Your task to perform on an android device: turn smart compose on in the gmail app Image 0: 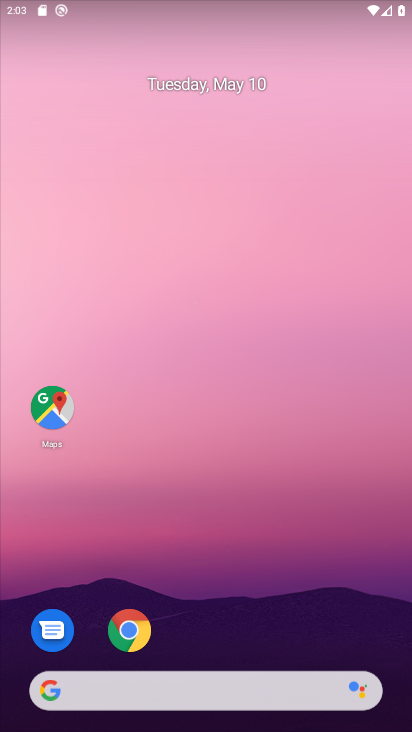
Step 0: drag from (309, 587) to (145, 158)
Your task to perform on an android device: turn smart compose on in the gmail app Image 1: 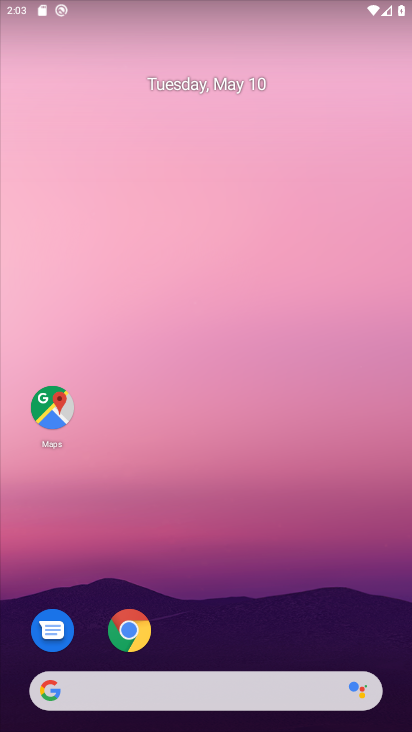
Step 1: drag from (200, 446) to (126, 153)
Your task to perform on an android device: turn smart compose on in the gmail app Image 2: 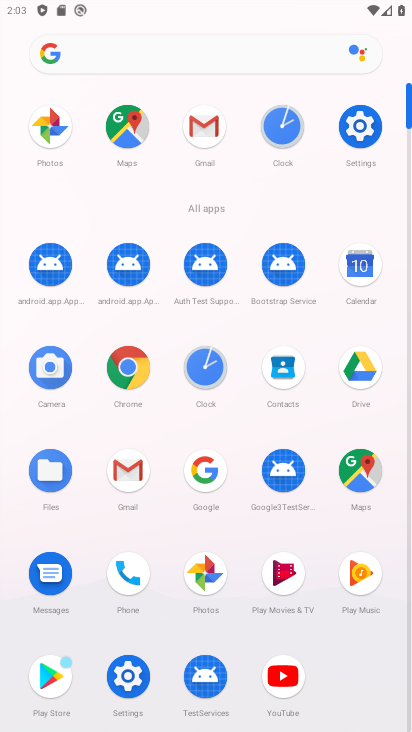
Step 2: click (133, 467)
Your task to perform on an android device: turn smart compose on in the gmail app Image 3: 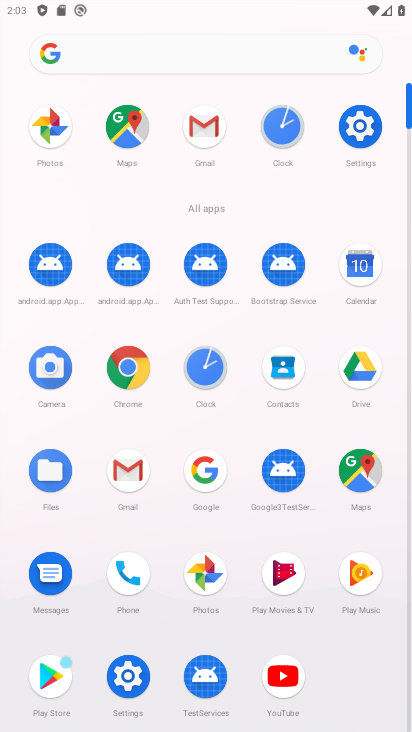
Step 3: click (131, 467)
Your task to perform on an android device: turn smart compose on in the gmail app Image 4: 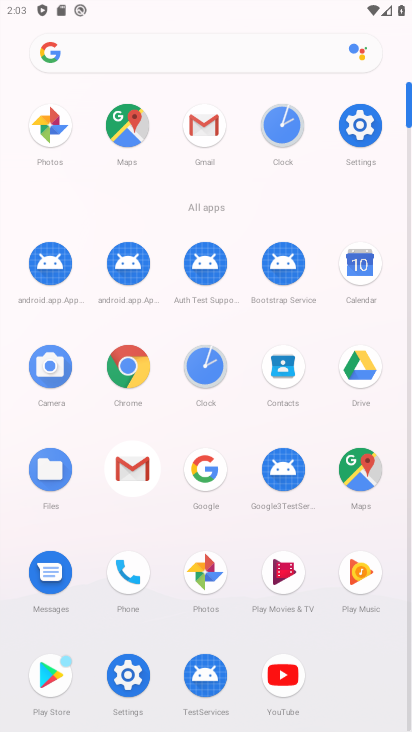
Step 4: click (116, 444)
Your task to perform on an android device: turn smart compose on in the gmail app Image 5: 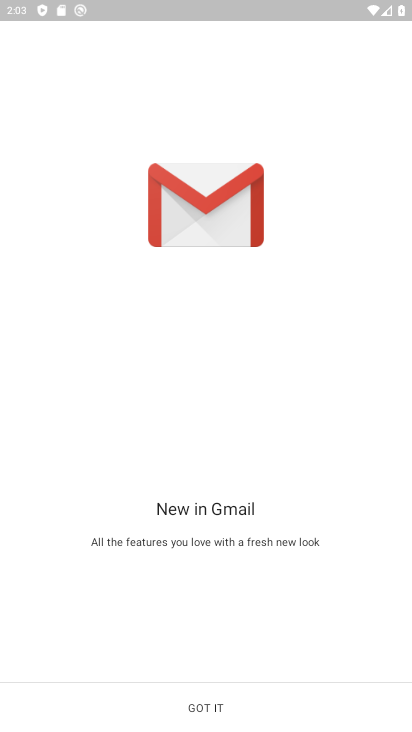
Step 5: click (214, 703)
Your task to perform on an android device: turn smart compose on in the gmail app Image 6: 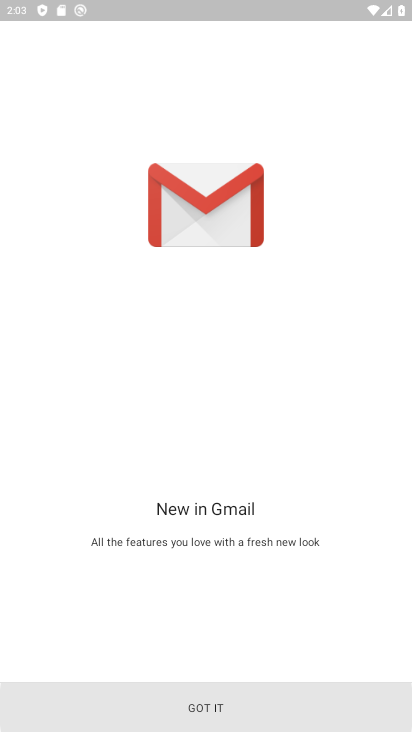
Step 6: click (215, 702)
Your task to perform on an android device: turn smart compose on in the gmail app Image 7: 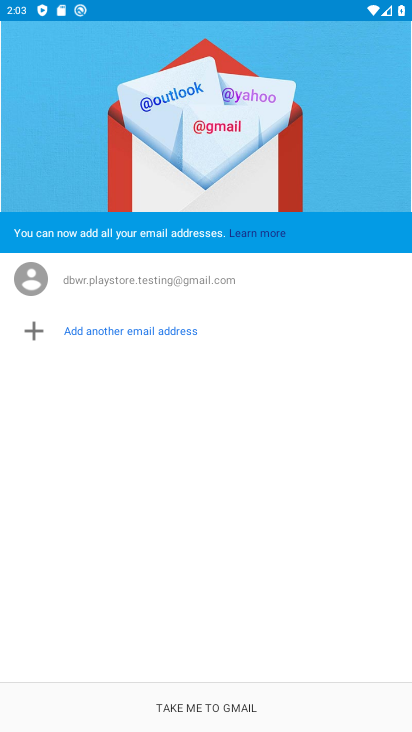
Step 7: click (223, 703)
Your task to perform on an android device: turn smart compose on in the gmail app Image 8: 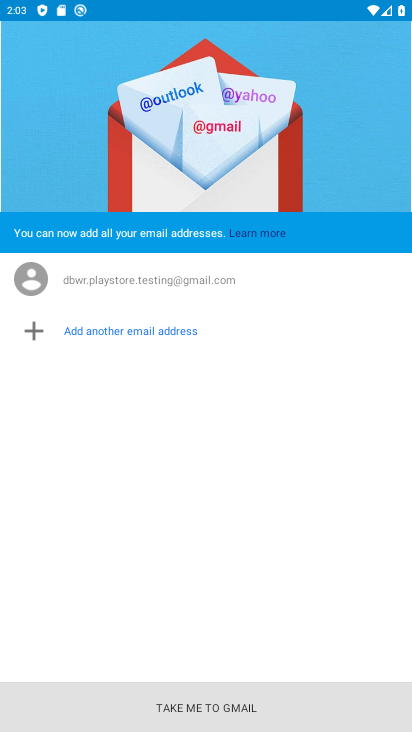
Step 8: click (214, 705)
Your task to perform on an android device: turn smart compose on in the gmail app Image 9: 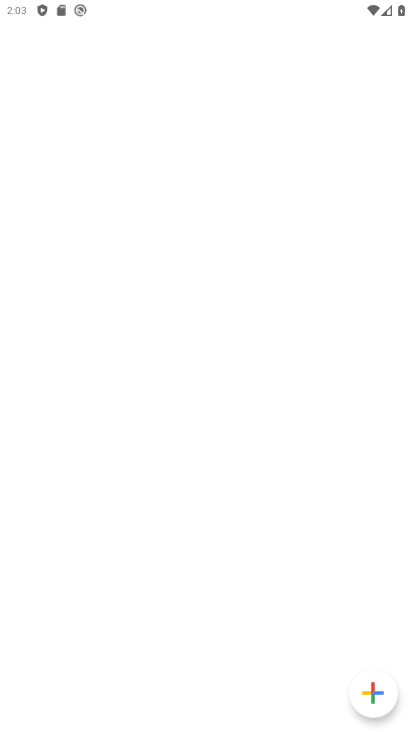
Step 9: click (224, 698)
Your task to perform on an android device: turn smart compose on in the gmail app Image 10: 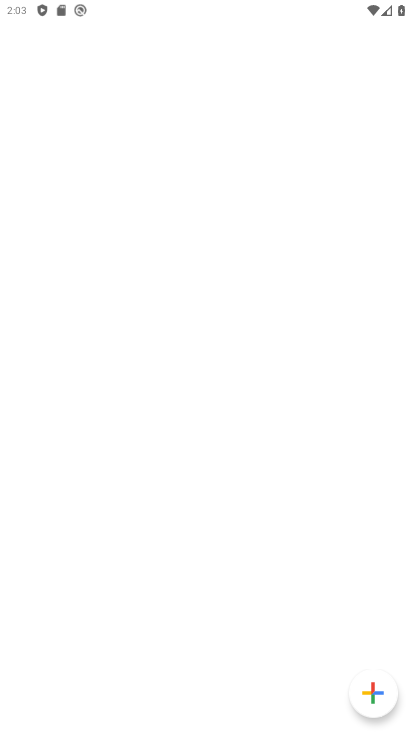
Step 10: click (219, 713)
Your task to perform on an android device: turn smart compose on in the gmail app Image 11: 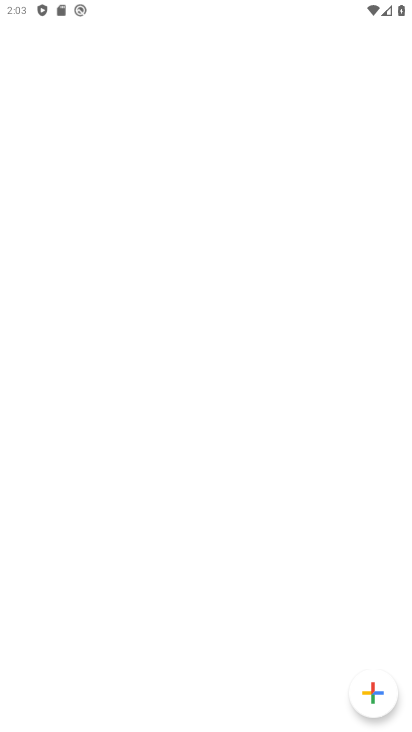
Step 11: click (231, 706)
Your task to perform on an android device: turn smart compose on in the gmail app Image 12: 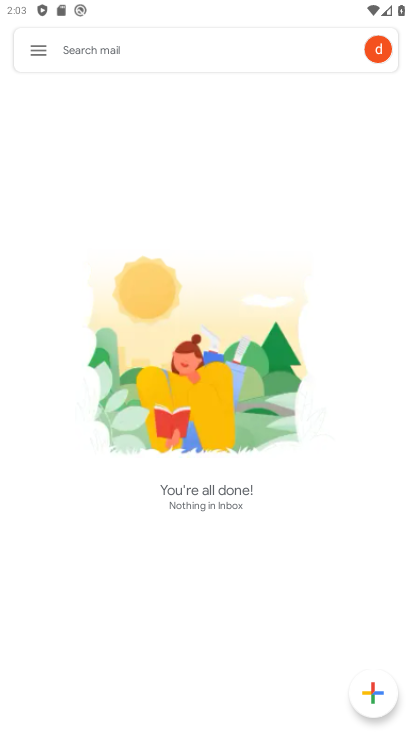
Step 12: click (36, 42)
Your task to perform on an android device: turn smart compose on in the gmail app Image 13: 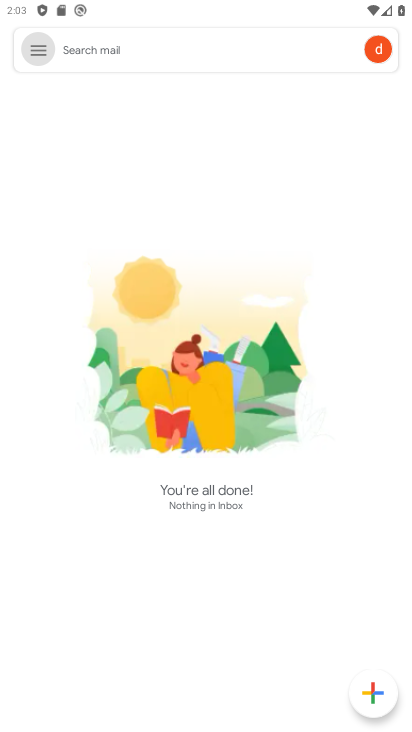
Step 13: click (38, 54)
Your task to perform on an android device: turn smart compose on in the gmail app Image 14: 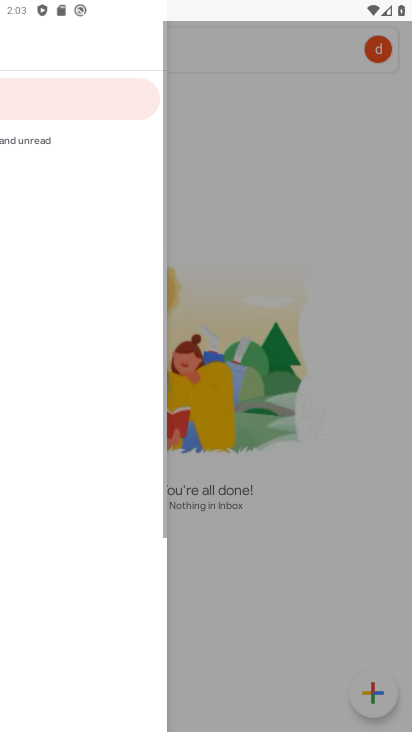
Step 14: click (38, 54)
Your task to perform on an android device: turn smart compose on in the gmail app Image 15: 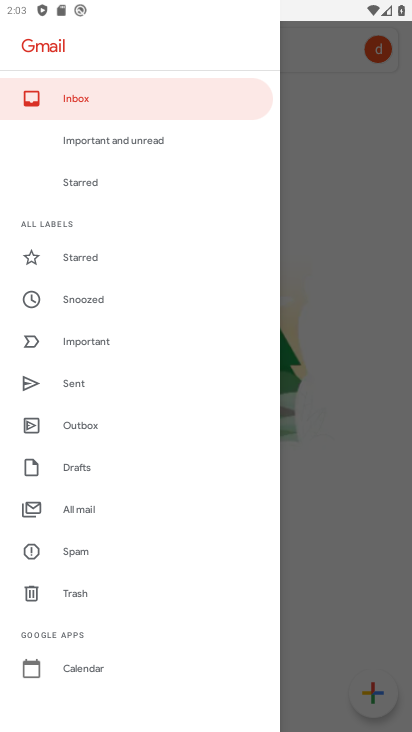
Step 15: drag from (110, 590) to (142, 141)
Your task to perform on an android device: turn smart compose on in the gmail app Image 16: 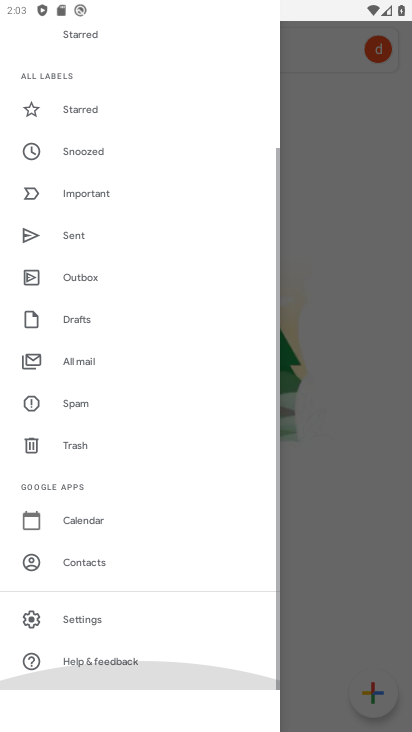
Step 16: drag from (175, 395) to (163, 112)
Your task to perform on an android device: turn smart compose on in the gmail app Image 17: 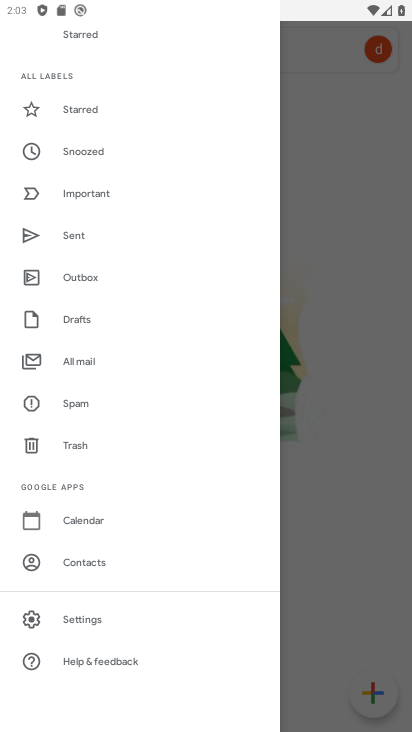
Step 17: click (82, 617)
Your task to perform on an android device: turn smart compose on in the gmail app Image 18: 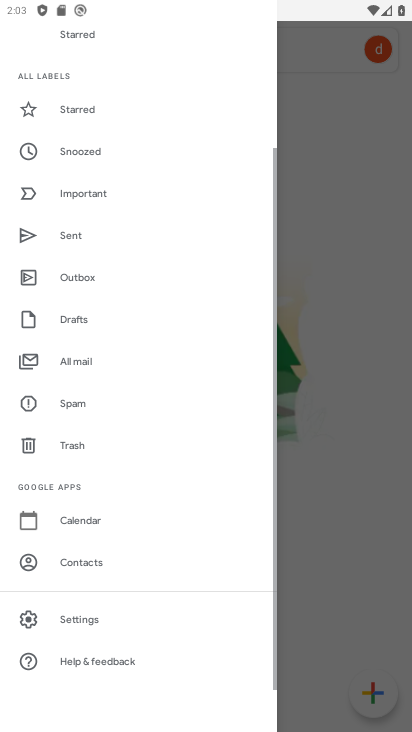
Step 18: click (84, 616)
Your task to perform on an android device: turn smart compose on in the gmail app Image 19: 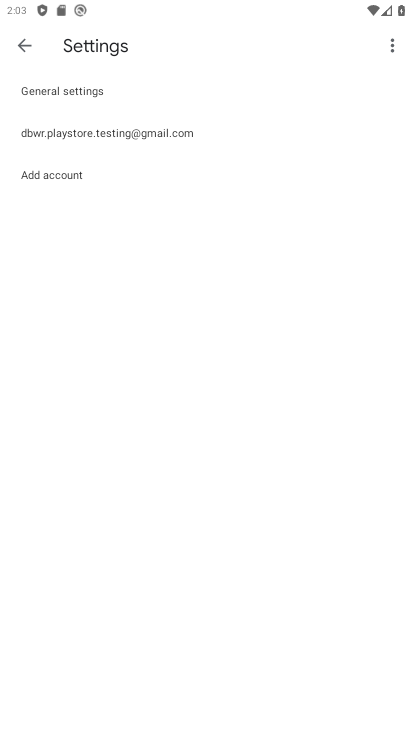
Step 19: click (73, 123)
Your task to perform on an android device: turn smart compose on in the gmail app Image 20: 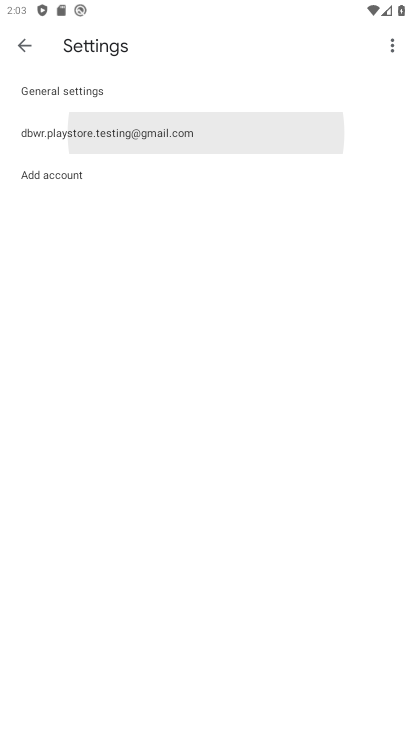
Step 20: click (73, 123)
Your task to perform on an android device: turn smart compose on in the gmail app Image 21: 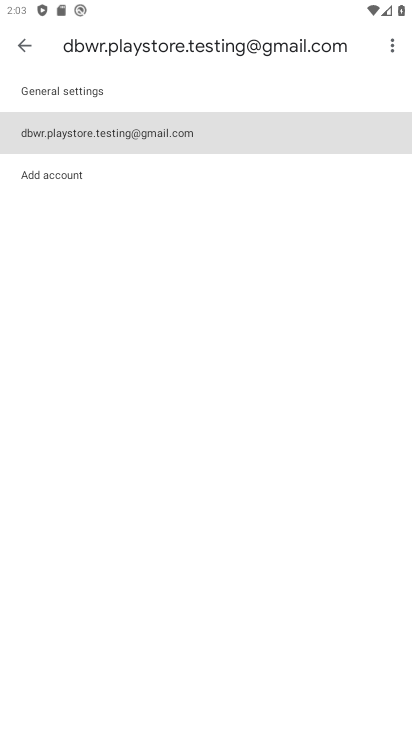
Step 21: click (73, 133)
Your task to perform on an android device: turn smart compose on in the gmail app Image 22: 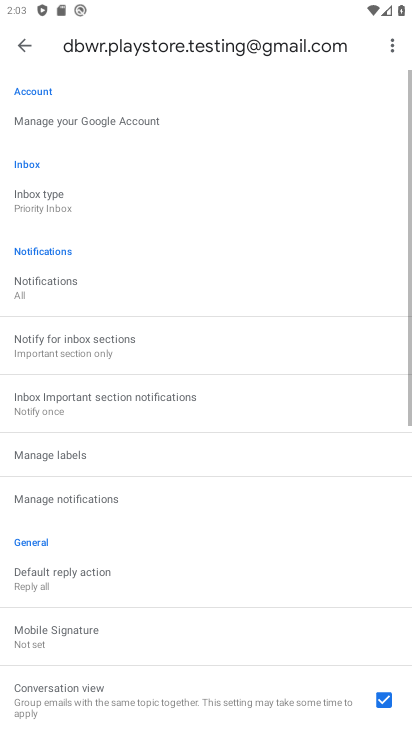
Step 22: click (74, 135)
Your task to perform on an android device: turn smart compose on in the gmail app Image 23: 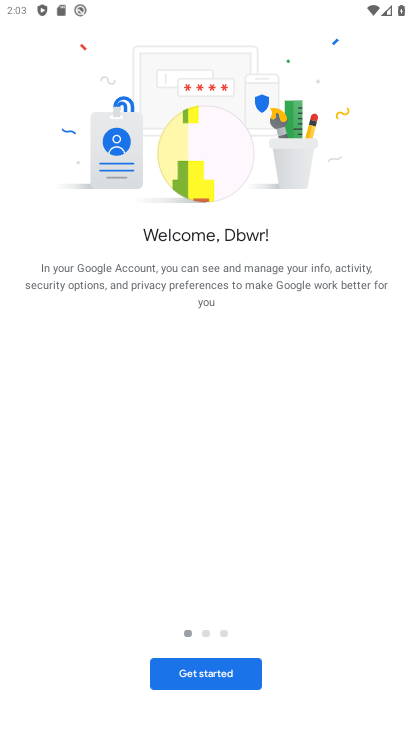
Step 23: click (216, 676)
Your task to perform on an android device: turn smart compose on in the gmail app Image 24: 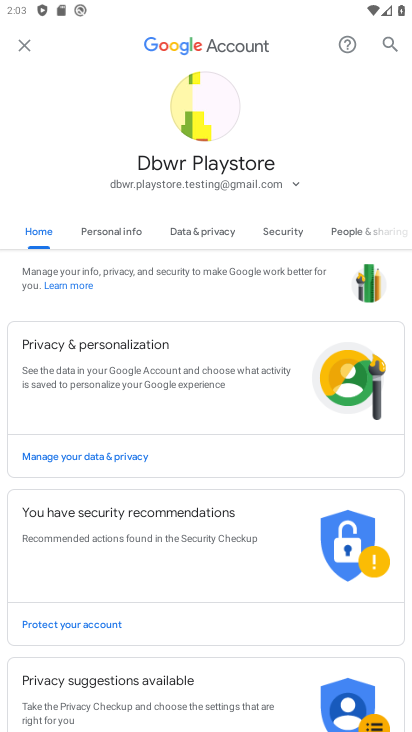
Step 24: drag from (223, 524) to (122, 165)
Your task to perform on an android device: turn smart compose on in the gmail app Image 25: 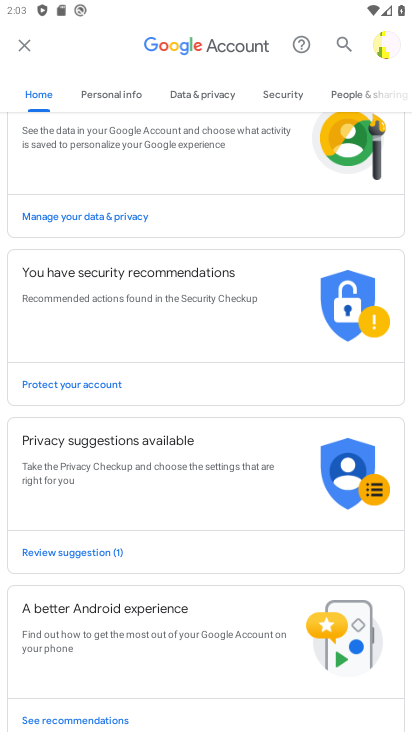
Step 25: drag from (198, 607) to (101, 162)
Your task to perform on an android device: turn smart compose on in the gmail app Image 26: 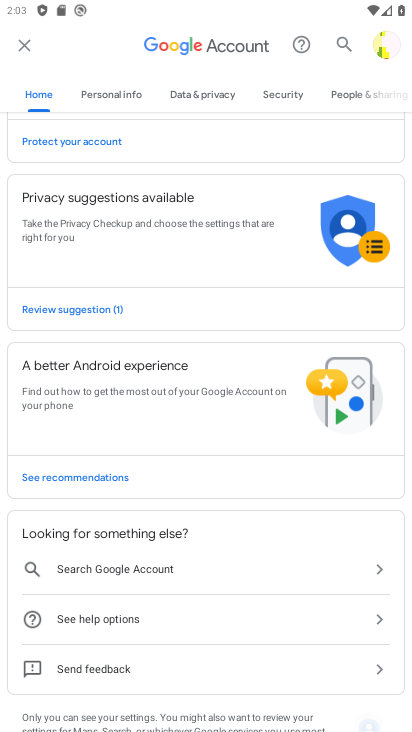
Step 26: drag from (172, 608) to (142, 243)
Your task to perform on an android device: turn smart compose on in the gmail app Image 27: 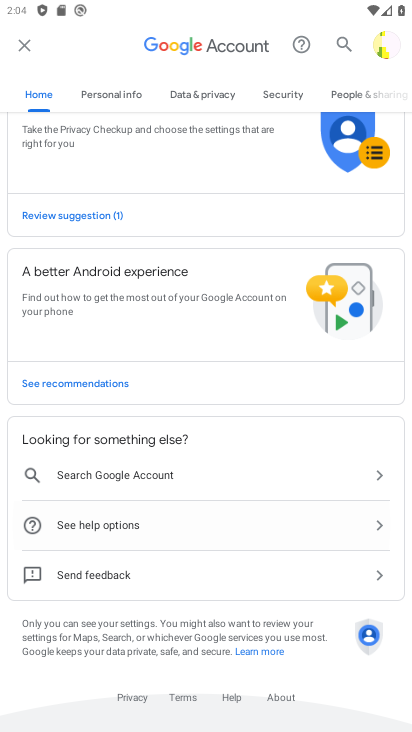
Step 27: drag from (213, 483) to (179, 64)
Your task to perform on an android device: turn smart compose on in the gmail app Image 28: 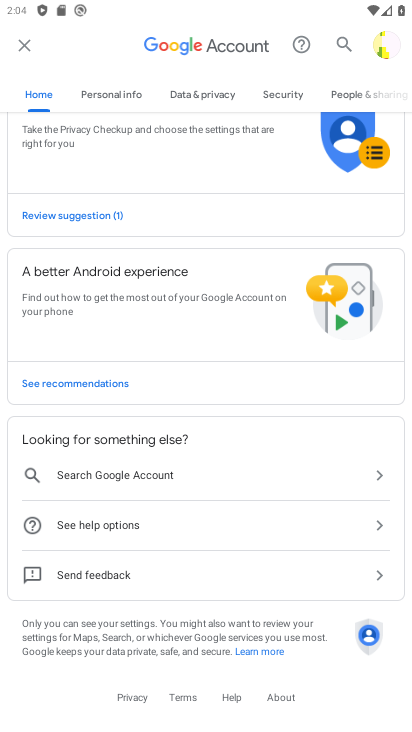
Step 28: click (26, 45)
Your task to perform on an android device: turn smart compose on in the gmail app Image 29: 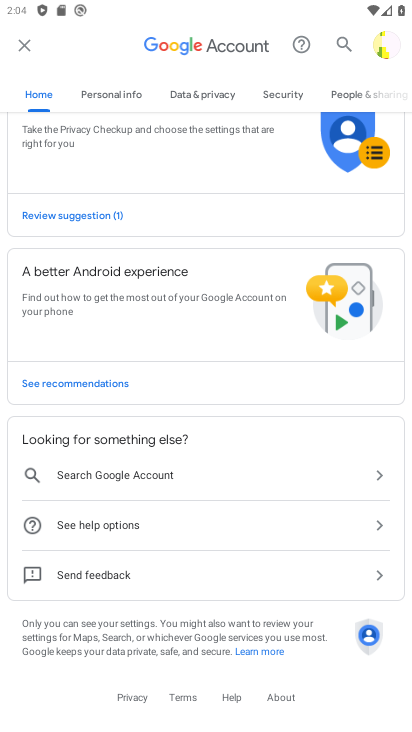
Step 29: click (31, 43)
Your task to perform on an android device: turn smart compose on in the gmail app Image 30: 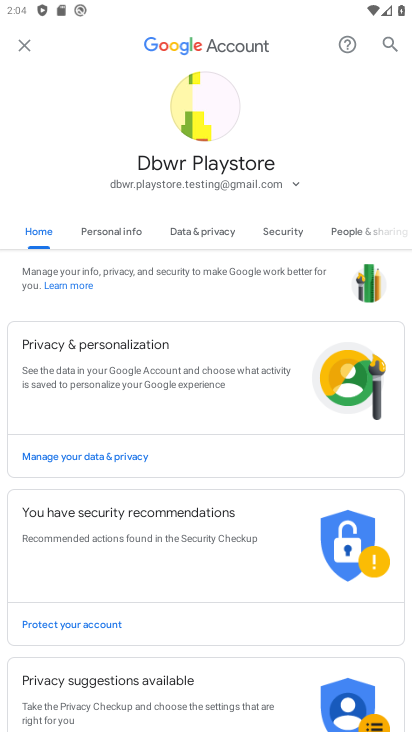
Step 30: drag from (237, 574) to (214, 55)
Your task to perform on an android device: turn smart compose on in the gmail app Image 31: 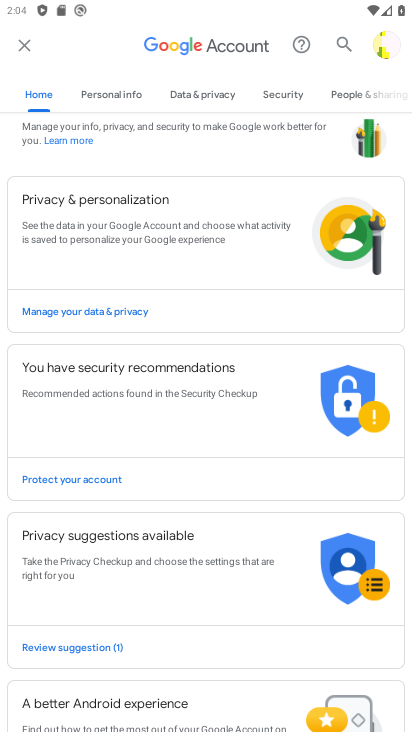
Step 31: drag from (200, 238) to (189, 89)
Your task to perform on an android device: turn smart compose on in the gmail app Image 32: 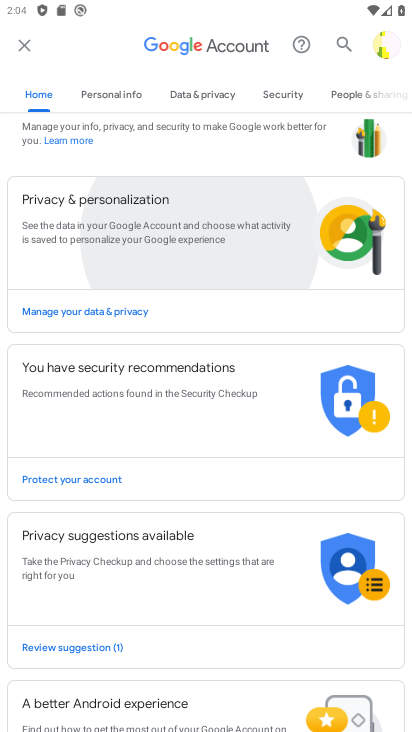
Step 32: drag from (213, 559) to (151, 24)
Your task to perform on an android device: turn smart compose on in the gmail app Image 33: 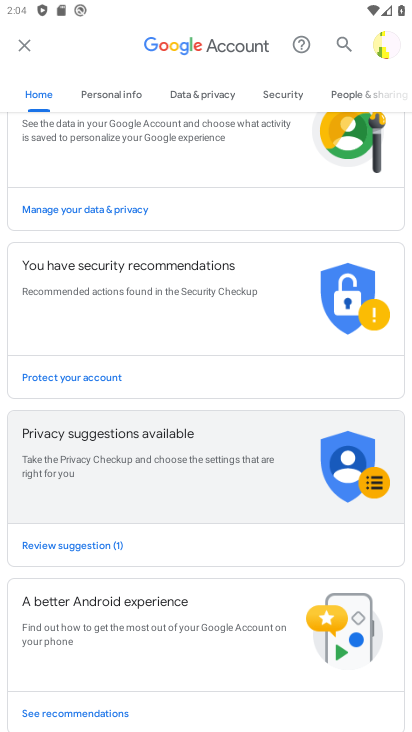
Step 33: drag from (253, 122) to (246, 67)
Your task to perform on an android device: turn smart compose on in the gmail app Image 34: 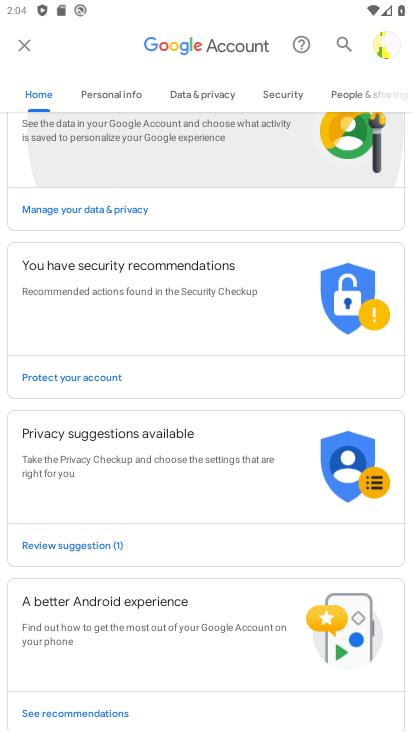
Step 34: drag from (128, 348) to (114, 144)
Your task to perform on an android device: turn smart compose on in the gmail app Image 35: 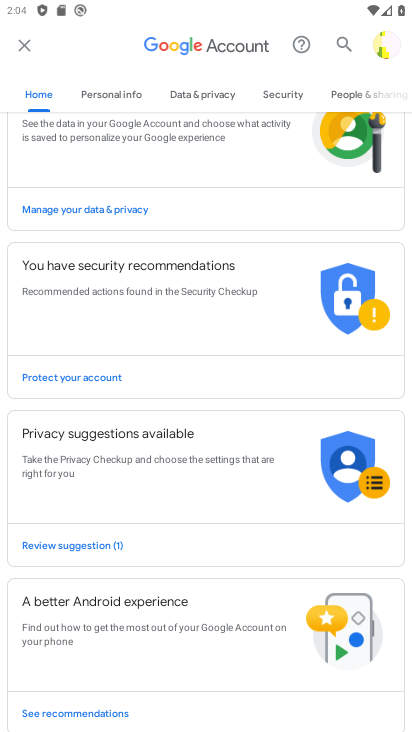
Step 35: drag from (245, 439) to (213, 66)
Your task to perform on an android device: turn smart compose on in the gmail app Image 36: 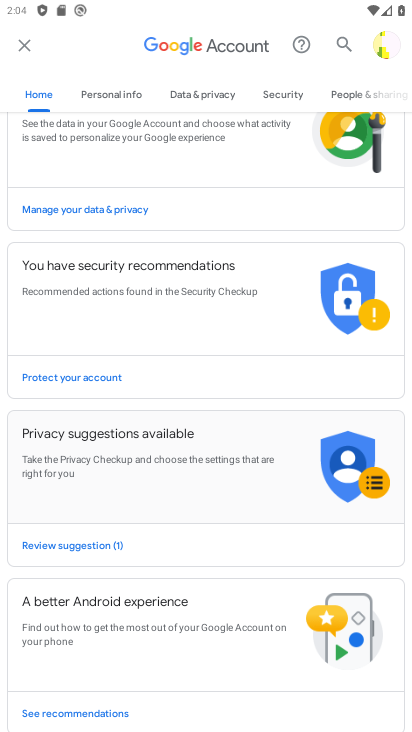
Step 36: drag from (171, 518) to (190, 601)
Your task to perform on an android device: turn smart compose on in the gmail app Image 37: 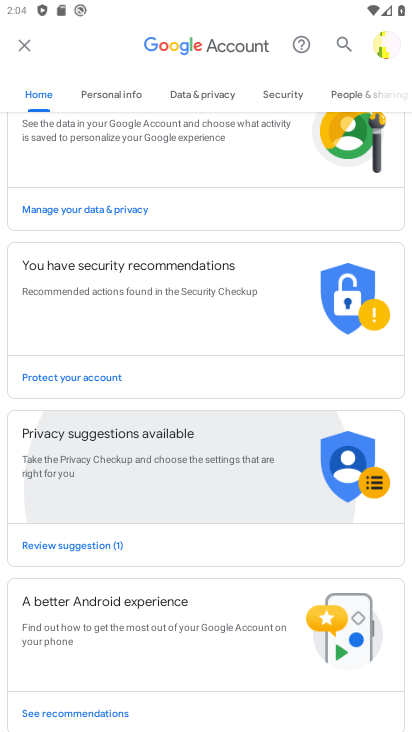
Step 37: drag from (100, 425) to (108, 460)
Your task to perform on an android device: turn smart compose on in the gmail app Image 38: 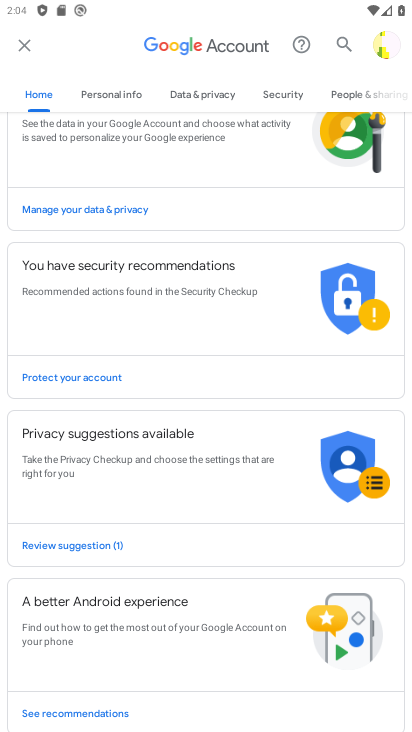
Step 38: click (22, 42)
Your task to perform on an android device: turn smart compose on in the gmail app Image 39: 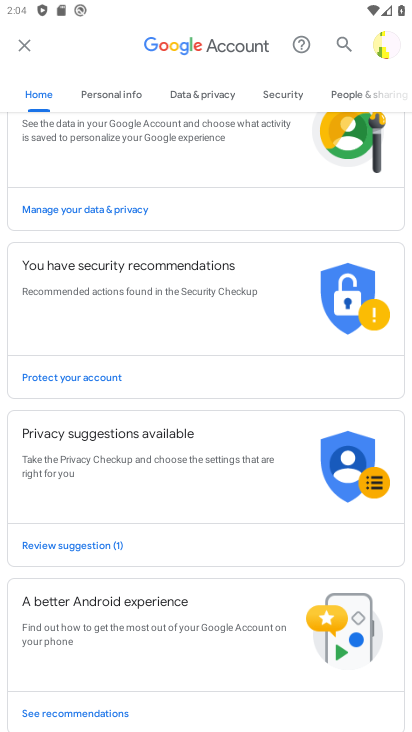
Step 39: click (23, 41)
Your task to perform on an android device: turn smart compose on in the gmail app Image 40: 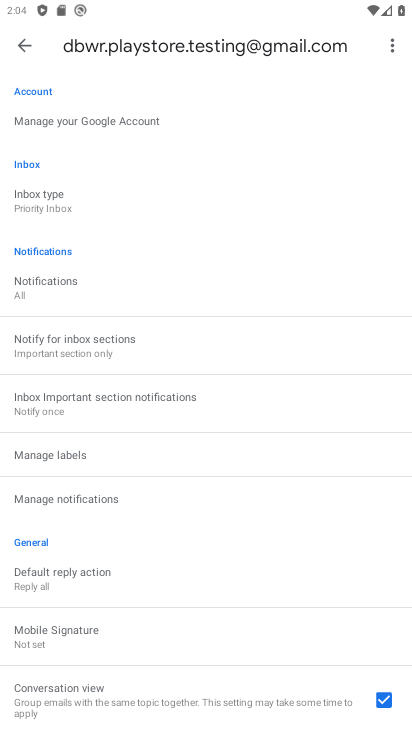
Step 40: task complete